Your task to perform on an android device: turn off notifications in google photos Image 0: 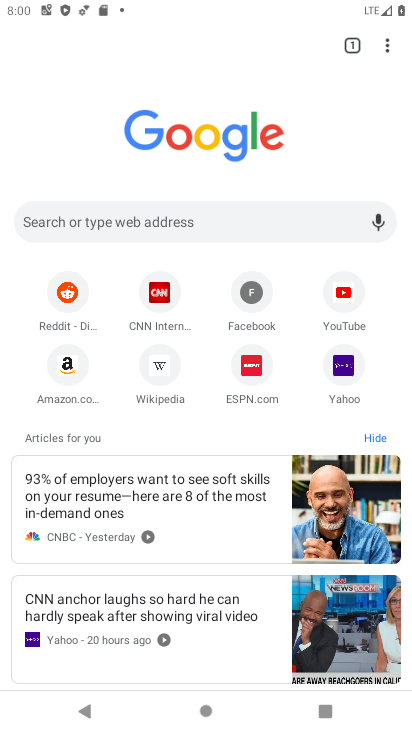
Step 0: press home button
Your task to perform on an android device: turn off notifications in google photos Image 1: 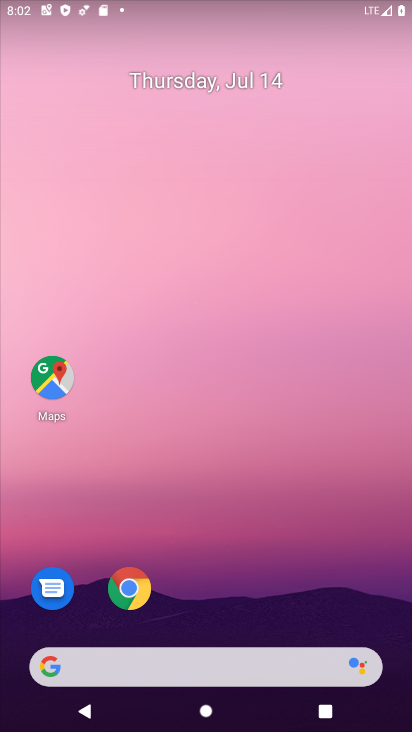
Step 1: drag from (362, 605) to (173, 3)
Your task to perform on an android device: turn off notifications in google photos Image 2: 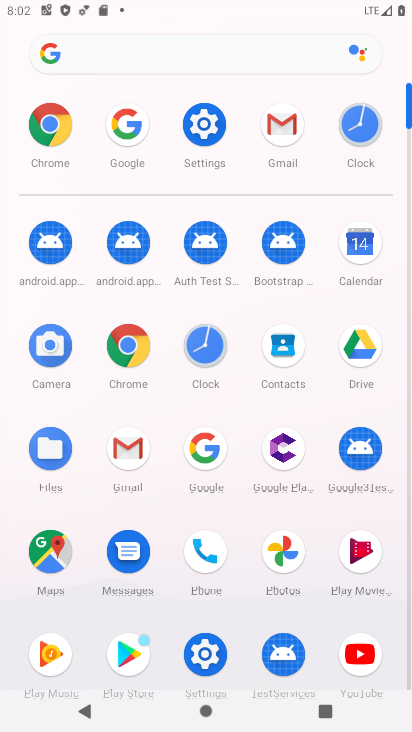
Step 2: click (274, 553)
Your task to perform on an android device: turn off notifications in google photos Image 3: 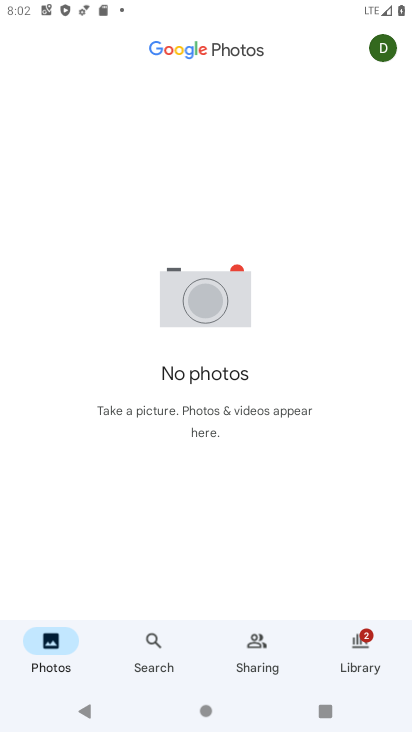
Step 3: click (381, 42)
Your task to perform on an android device: turn off notifications in google photos Image 4: 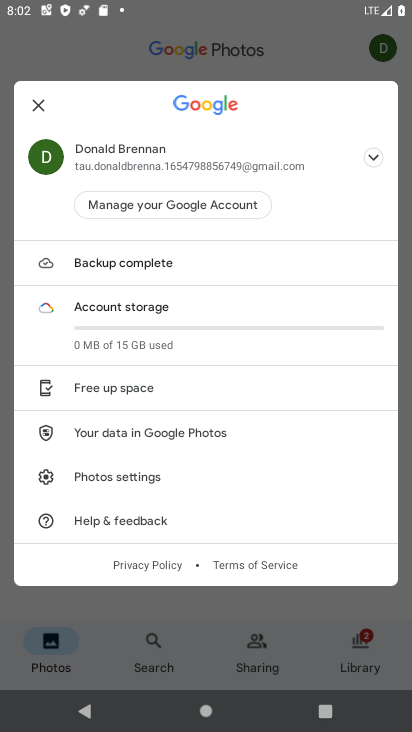
Step 4: click (125, 470)
Your task to perform on an android device: turn off notifications in google photos Image 5: 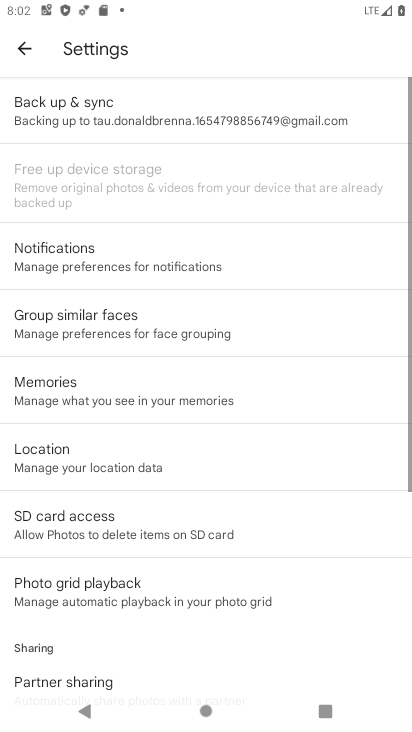
Step 5: click (102, 243)
Your task to perform on an android device: turn off notifications in google photos Image 6: 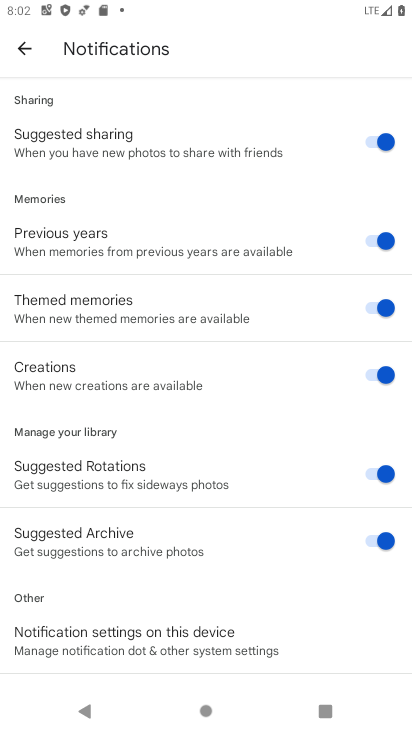
Step 6: click (331, 136)
Your task to perform on an android device: turn off notifications in google photos Image 7: 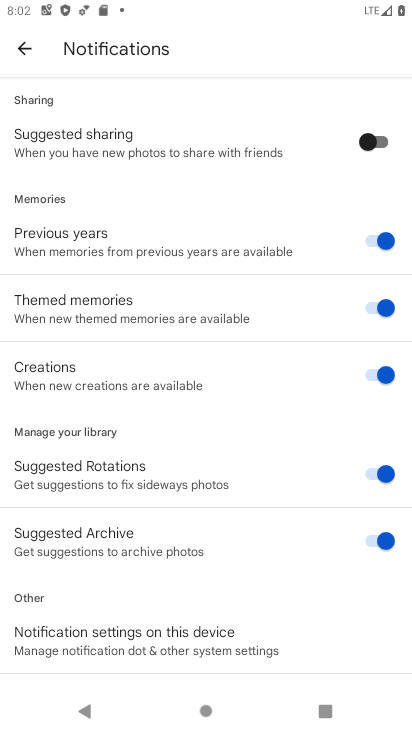
Step 7: task complete